Your task to perform on an android device: change the clock display to show seconds Image 0: 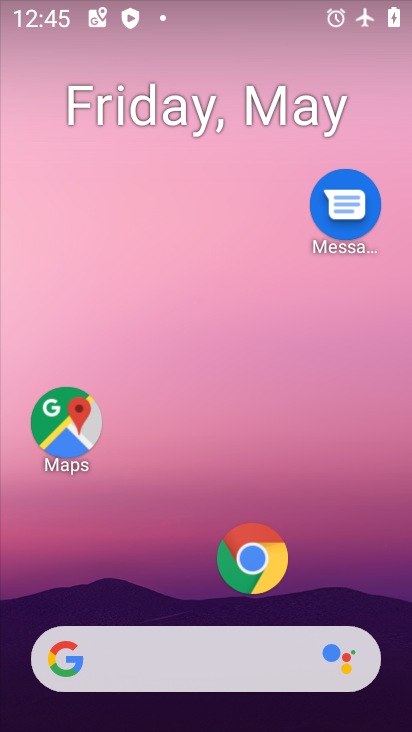
Step 0: drag from (188, 644) to (150, 216)
Your task to perform on an android device: change the clock display to show seconds Image 1: 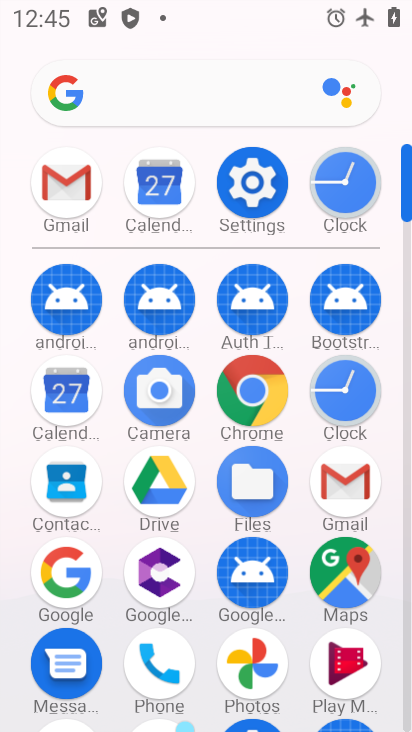
Step 1: click (339, 400)
Your task to perform on an android device: change the clock display to show seconds Image 2: 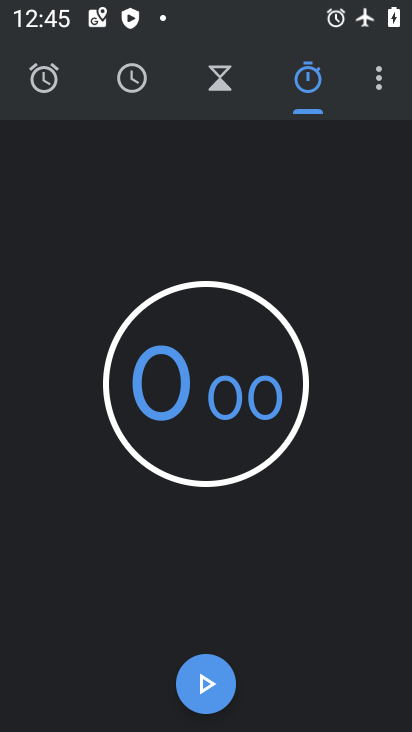
Step 2: click (378, 69)
Your task to perform on an android device: change the clock display to show seconds Image 3: 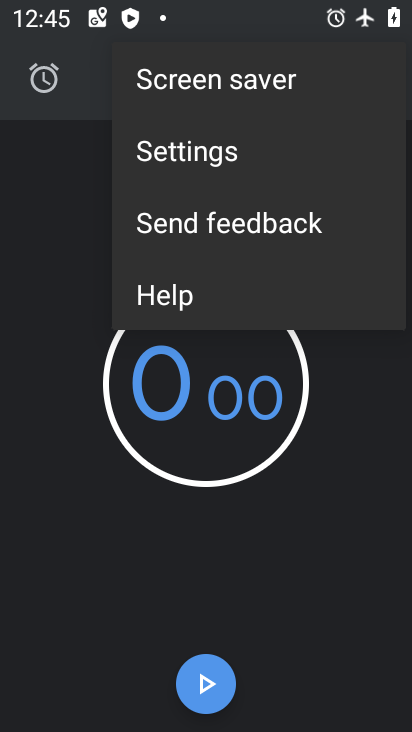
Step 3: click (229, 159)
Your task to perform on an android device: change the clock display to show seconds Image 4: 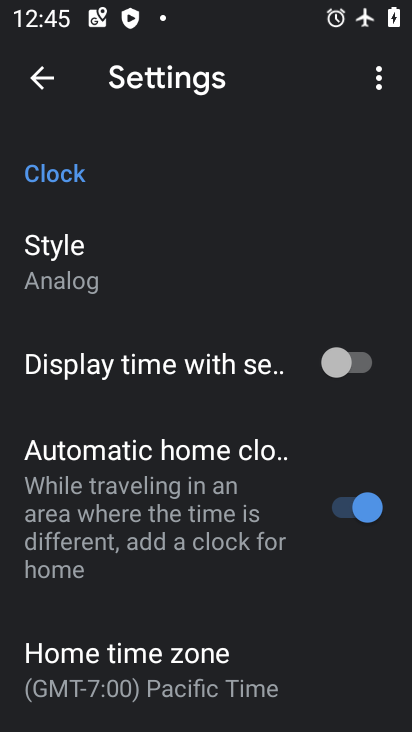
Step 4: click (166, 355)
Your task to perform on an android device: change the clock display to show seconds Image 5: 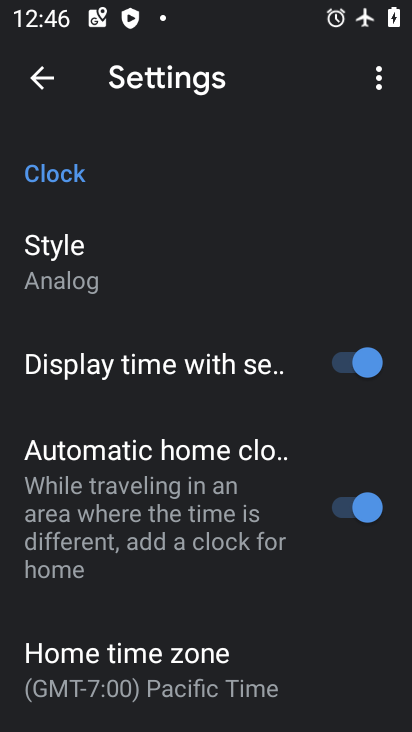
Step 5: task complete